Your task to perform on an android device: Turn on the flashlight Image 0: 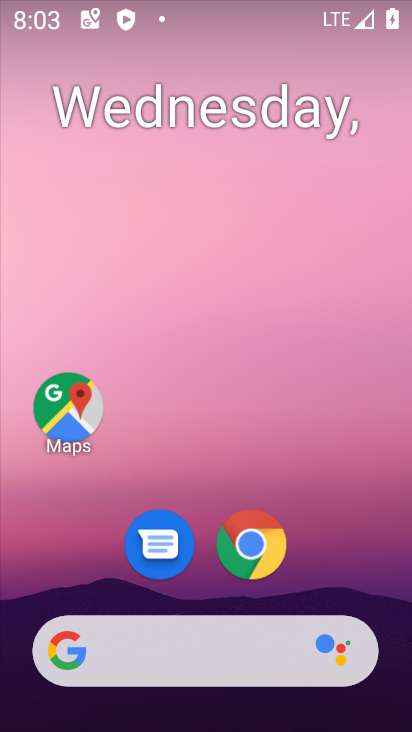
Step 0: press back button
Your task to perform on an android device: Turn on the flashlight Image 1: 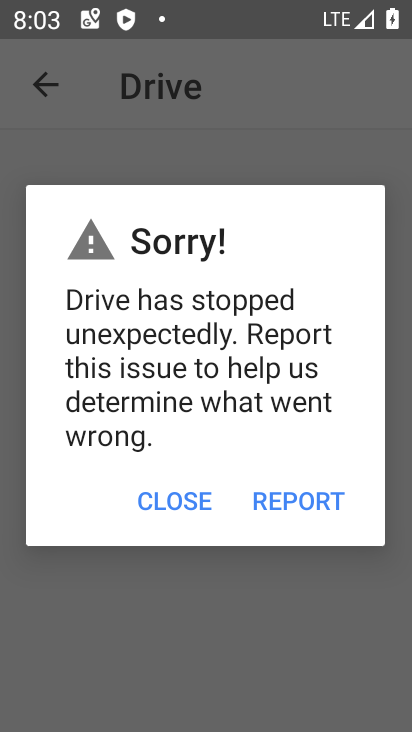
Step 1: press home button
Your task to perform on an android device: Turn on the flashlight Image 2: 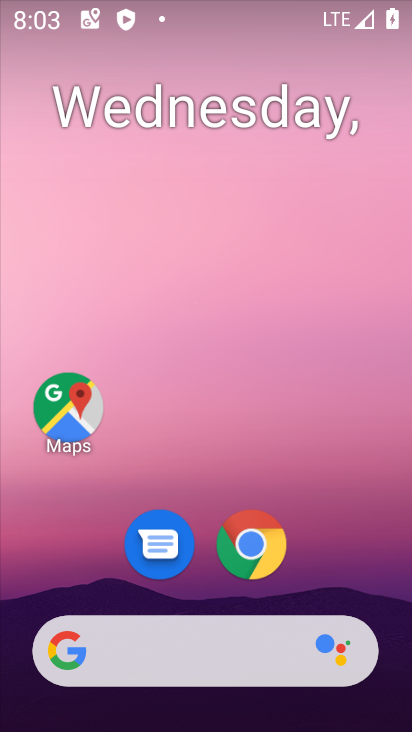
Step 2: drag from (347, 542) to (259, 0)
Your task to perform on an android device: Turn on the flashlight Image 3: 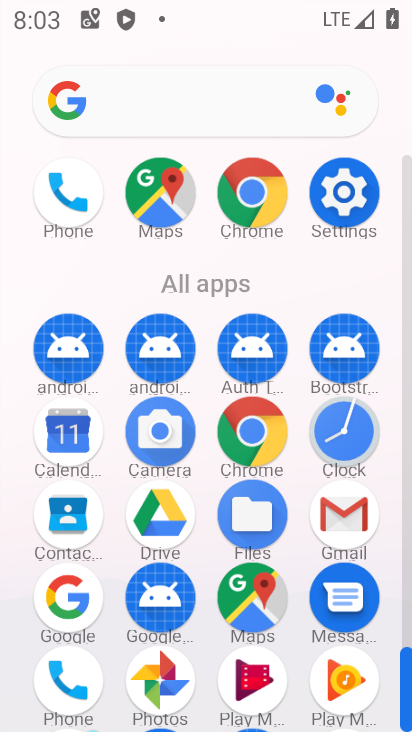
Step 3: click (346, 185)
Your task to perform on an android device: Turn on the flashlight Image 4: 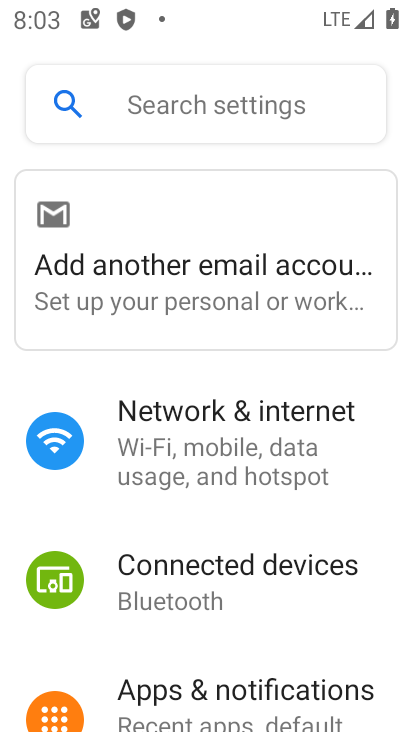
Step 4: drag from (339, 519) to (319, 136)
Your task to perform on an android device: Turn on the flashlight Image 5: 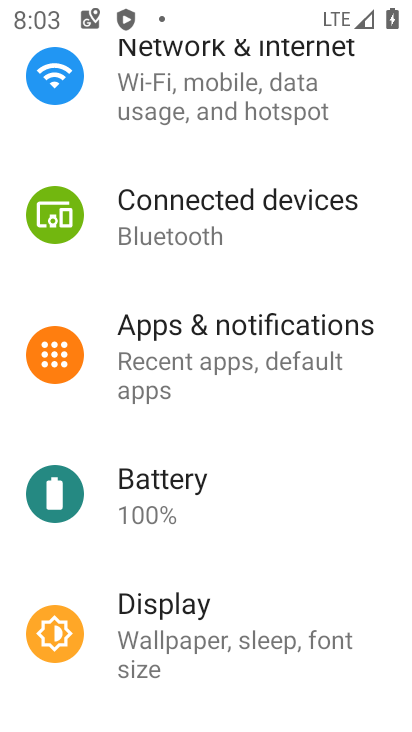
Step 5: click (288, 85)
Your task to perform on an android device: Turn on the flashlight Image 6: 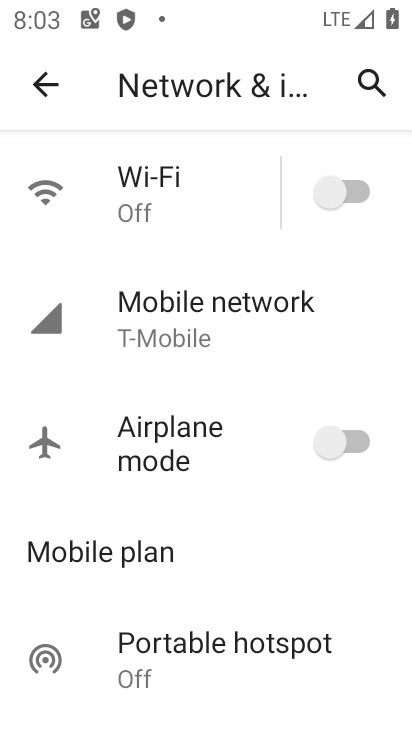
Step 6: drag from (214, 571) to (220, 191)
Your task to perform on an android device: Turn on the flashlight Image 7: 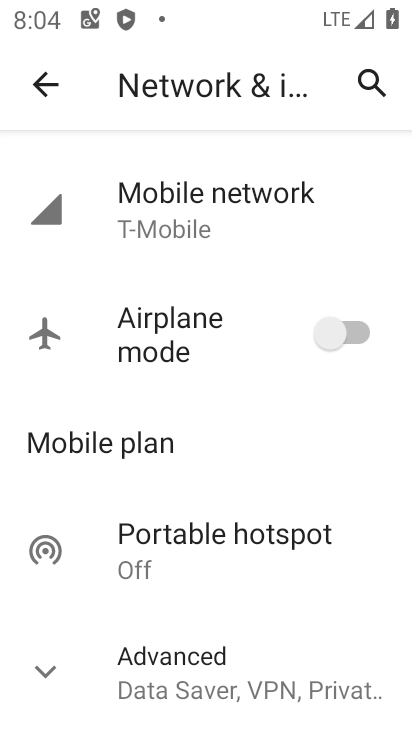
Step 7: click (55, 672)
Your task to perform on an android device: Turn on the flashlight Image 8: 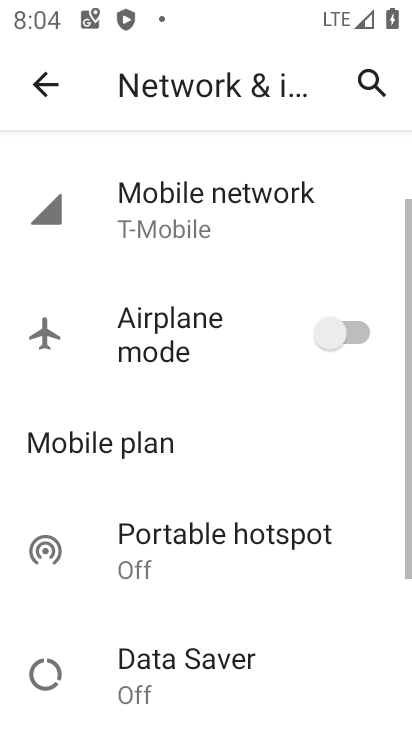
Step 8: task complete